Your task to perform on an android device: Open calendar and show me the second week of next month Image 0: 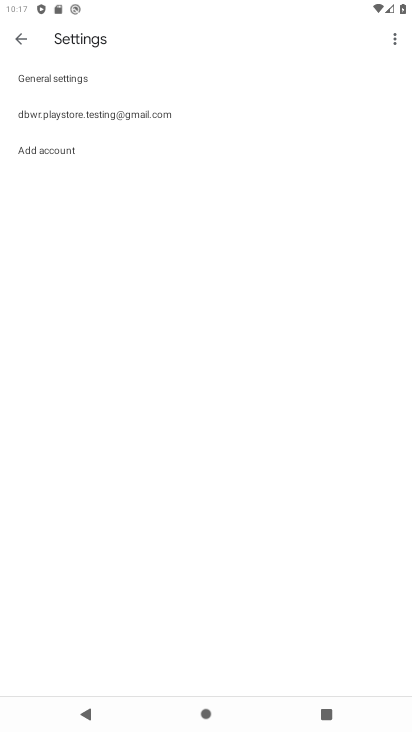
Step 0: press home button
Your task to perform on an android device: Open calendar and show me the second week of next month Image 1: 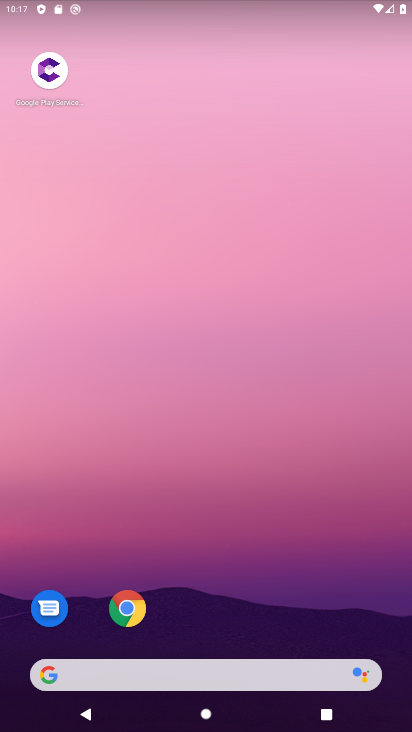
Step 1: drag from (267, 551) to (325, 50)
Your task to perform on an android device: Open calendar and show me the second week of next month Image 2: 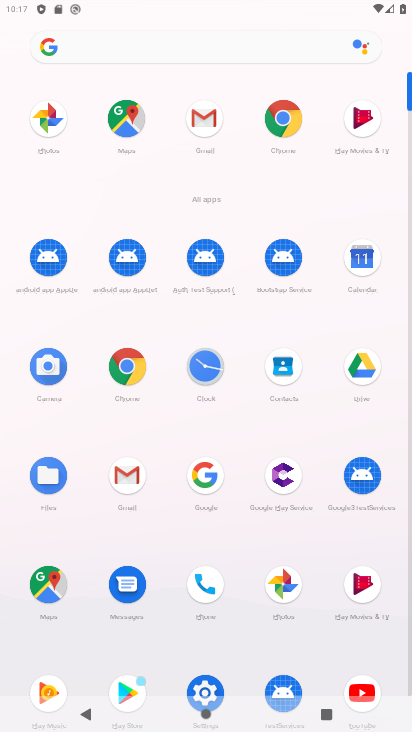
Step 2: click (367, 247)
Your task to perform on an android device: Open calendar and show me the second week of next month Image 3: 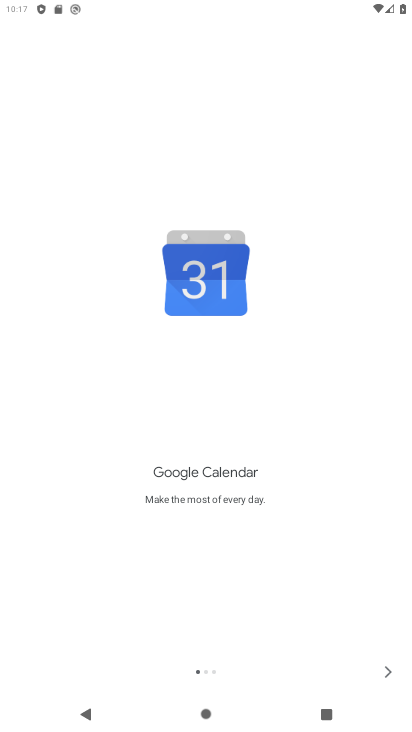
Step 3: click (384, 678)
Your task to perform on an android device: Open calendar and show me the second week of next month Image 4: 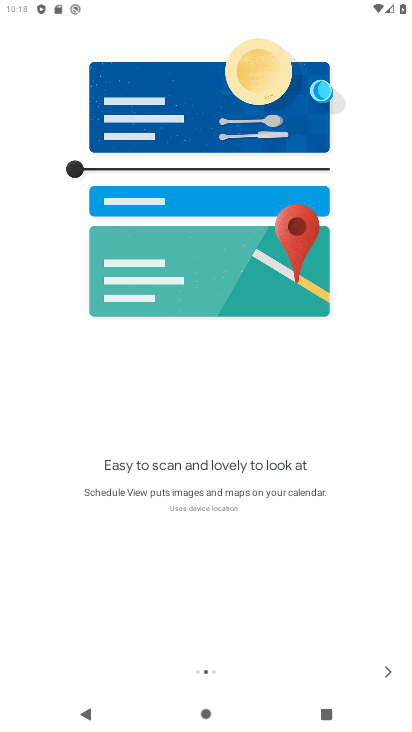
Step 4: click (384, 677)
Your task to perform on an android device: Open calendar and show me the second week of next month Image 5: 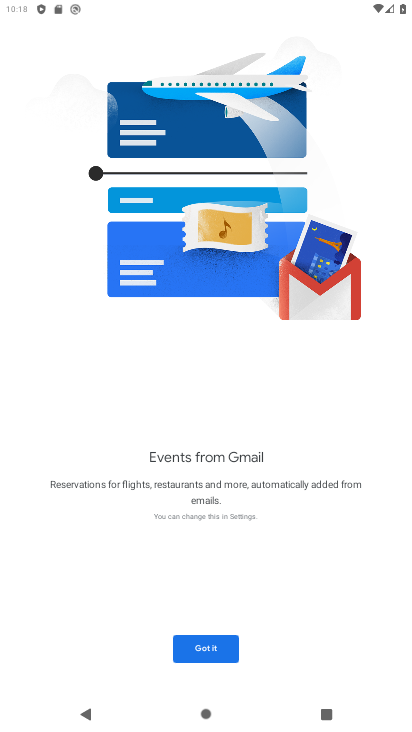
Step 5: click (194, 656)
Your task to perform on an android device: Open calendar and show me the second week of next month Image 6: 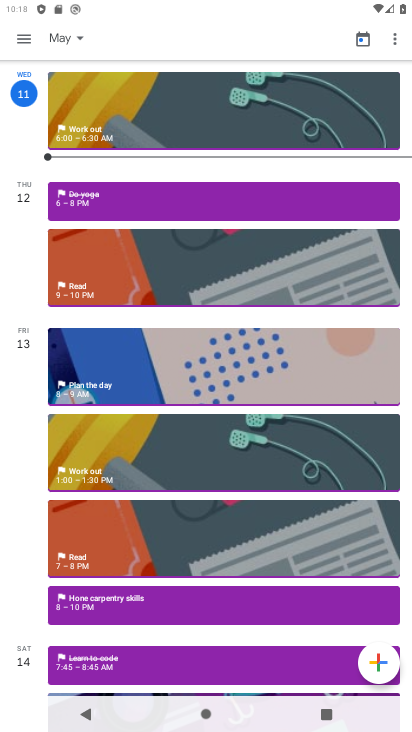
Step 6: click (71, 39)
Your task to perform on an android device: Open calendar and show me the second week of next month Image 7: 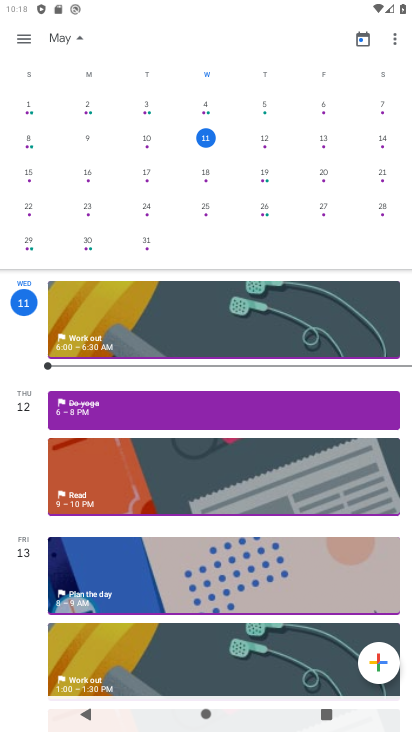
Step 7: drag from (403, 191) to (34, 170)
Your task to perform on an android device: Open calendar and show me the second week of next month Image 8: 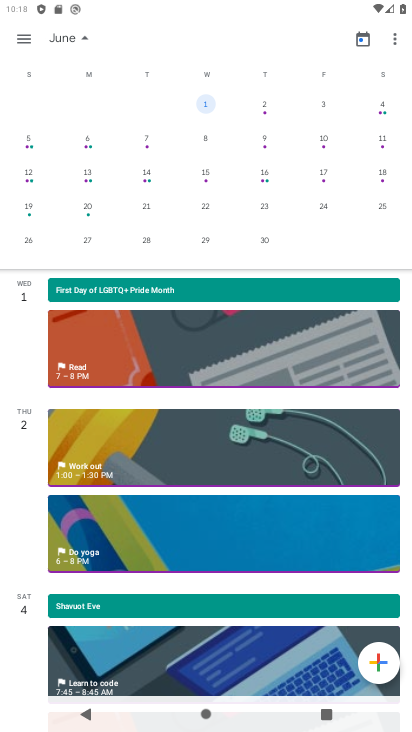
Step 8: click (209, 146)
Your task to perform on an android device: Open calendar and show me the second week of next month Image 9: 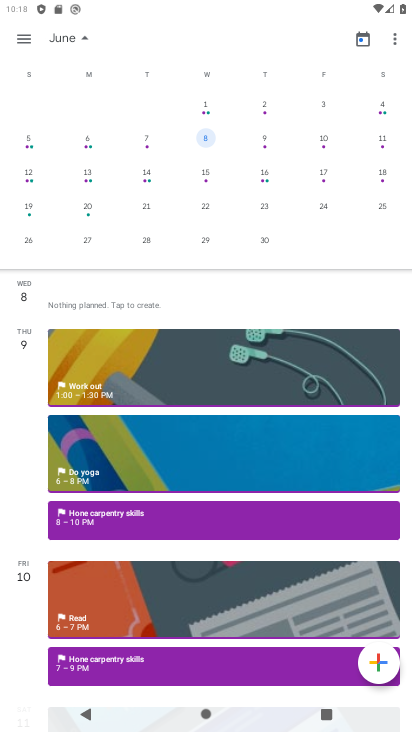
Step 9: click (15, 35)
Your task to perform on an android device: Open calendar and show me the second week of next month Image 10: 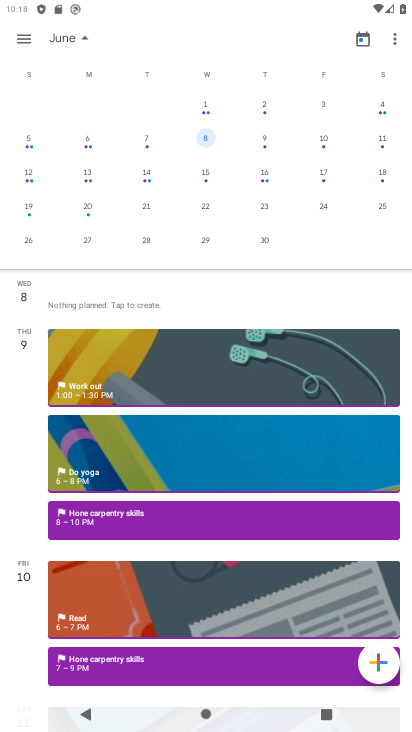
Step 10: click (26, 43)
Your task to perform on an android device: Open calendar and show me the second week of next month Image 11: 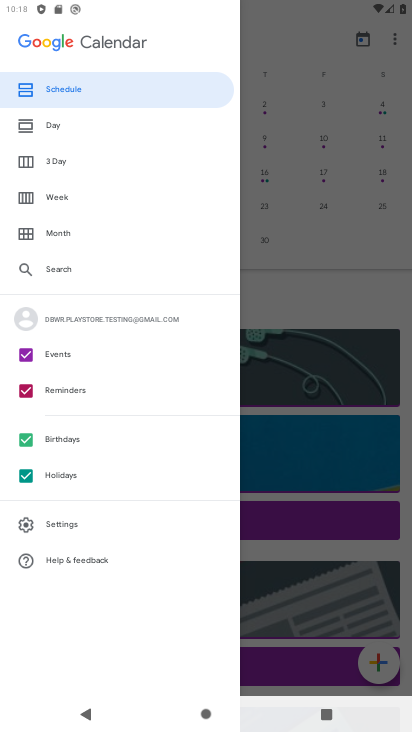
Step 11: click (81, 198)
Your task to perform on an android device: Open calendar and show me the second week of next month Image 12: 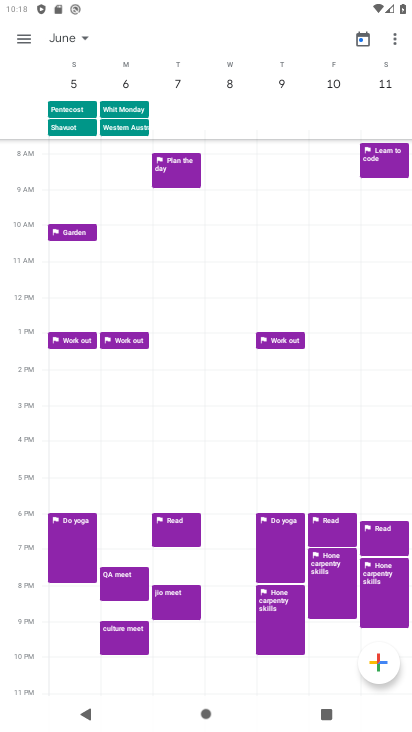
Step 12: task complete